Your task to perform on an android device: Go to display settings Image 0: 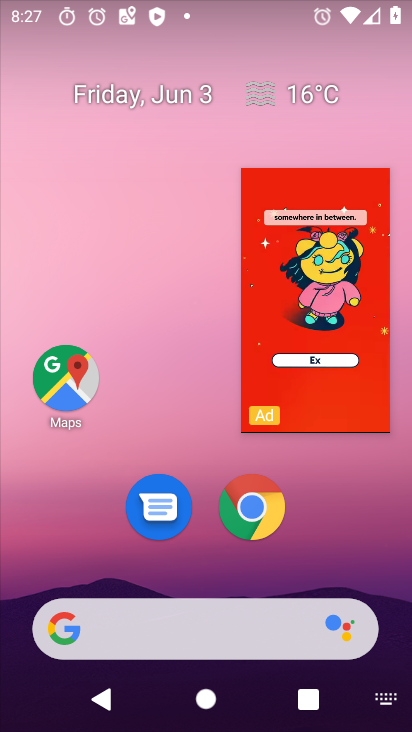
Step 0: drag from (194, 414) to (107, 0)
Your task to perform on an android device: Go to display settings Image 1: 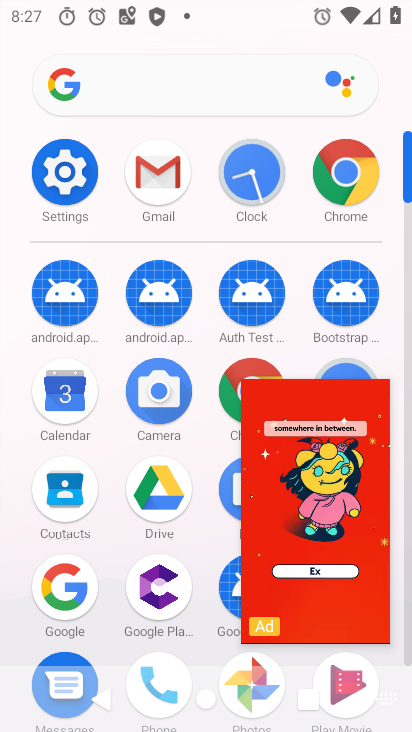
Step 1: click (53, 162)
Your task to perform on an android device: Go to display settings Image 2: 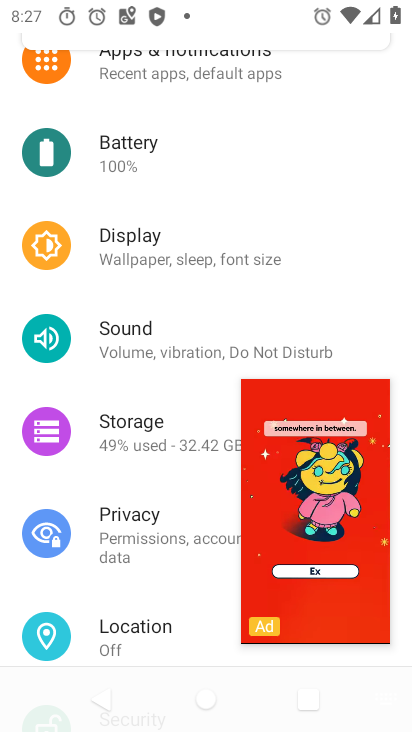
Step 2: click (156, 244)
Your task to perform on an android device: Go to display settings Image 3: 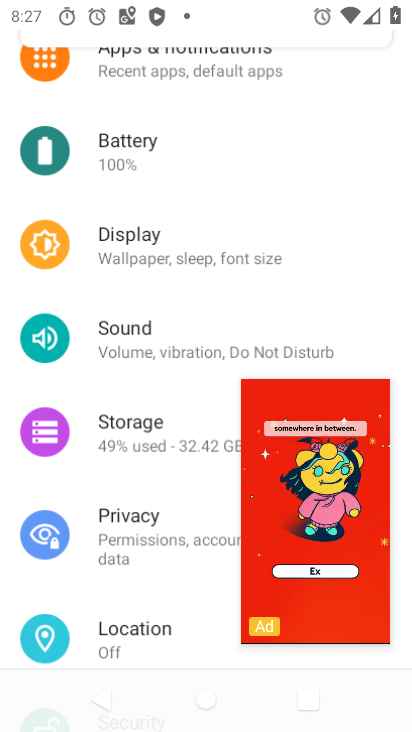
Step 3: task complete